Your task to perform on an android device: Go to Wikipedia Image 0: 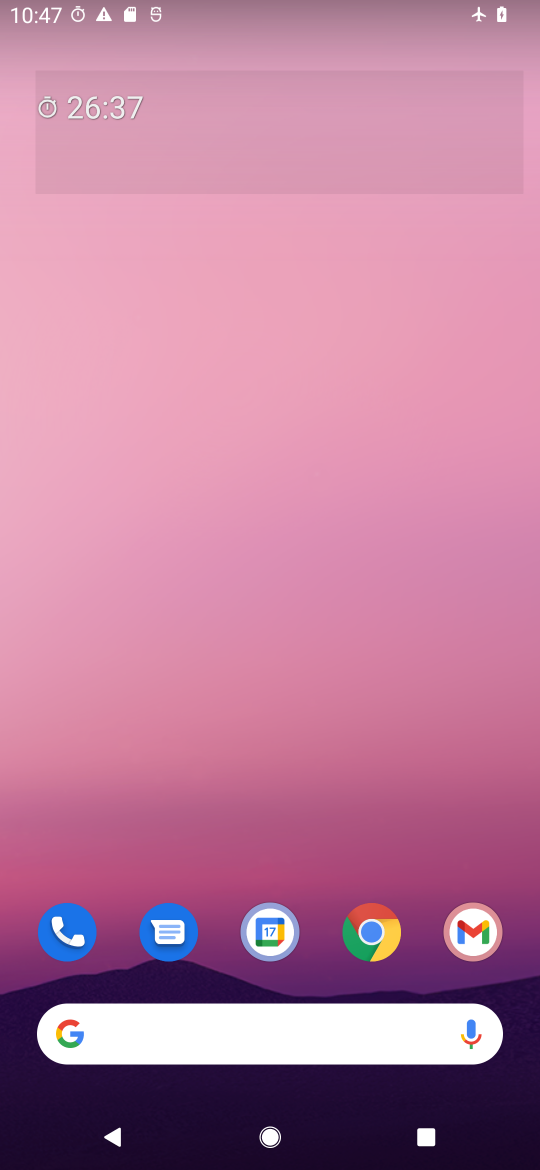
Step 0: click (386, 916)
Your task to perform on an android device: Go to Wikipedia Image 1: 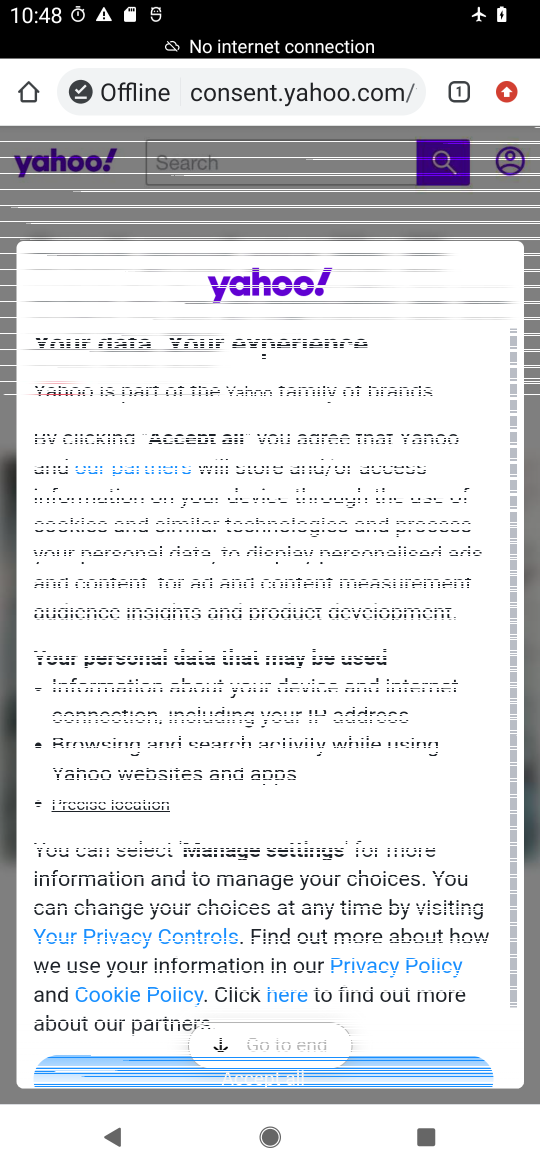
Step 1: click (460, 87)
Your task to perform on an android device: Go to Wikipedia Image 2: 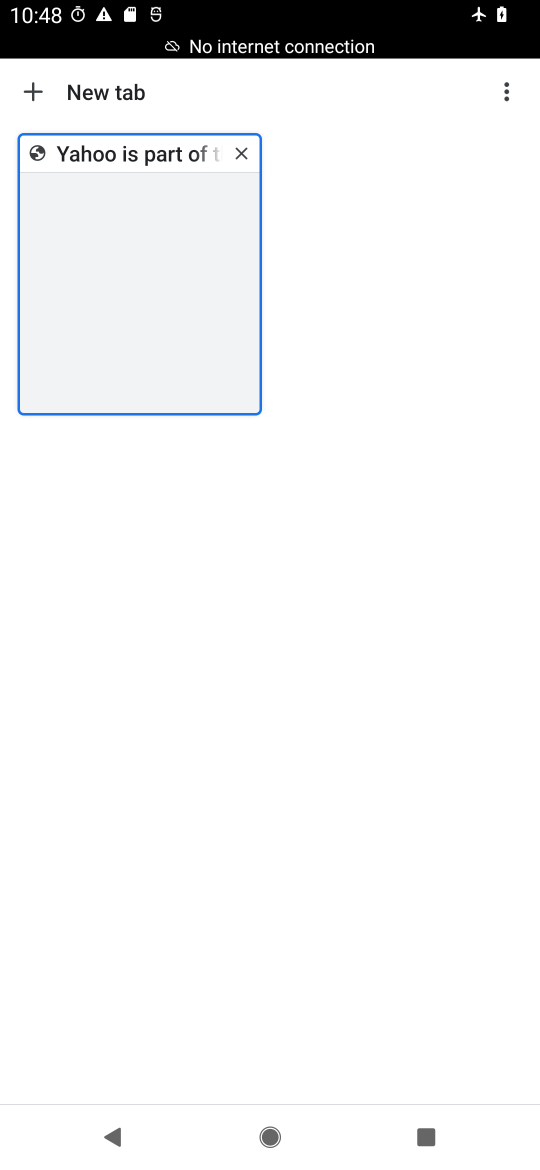
Step 2: click (34, 87)
Your task to perform on an android device: Go to Wikipedia Image 3: 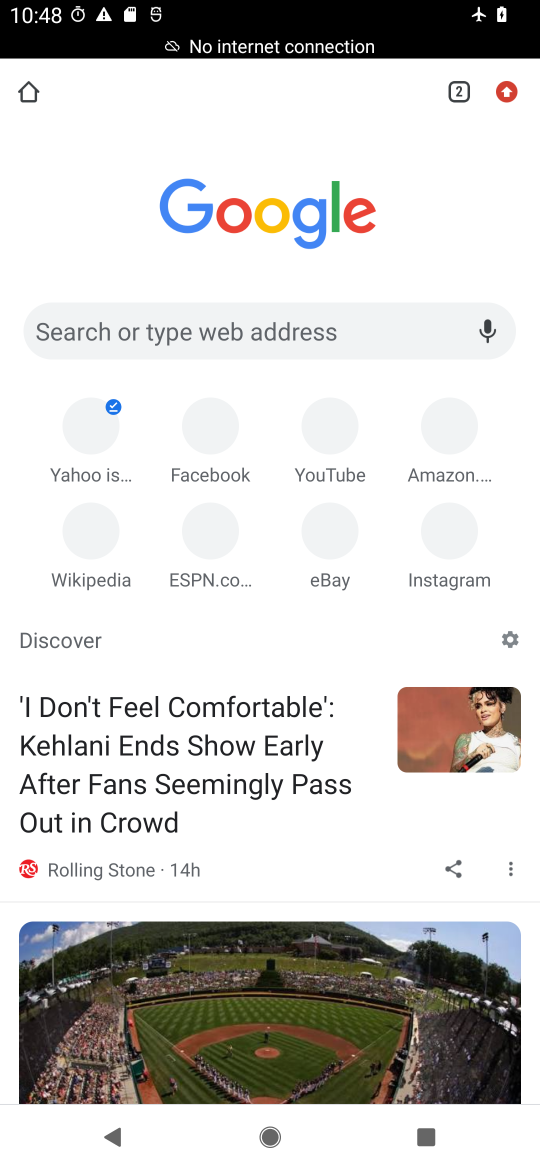
Step 3: click (107, 524)
Your task to perform on an android device: Go to Wikipedia Image 4: 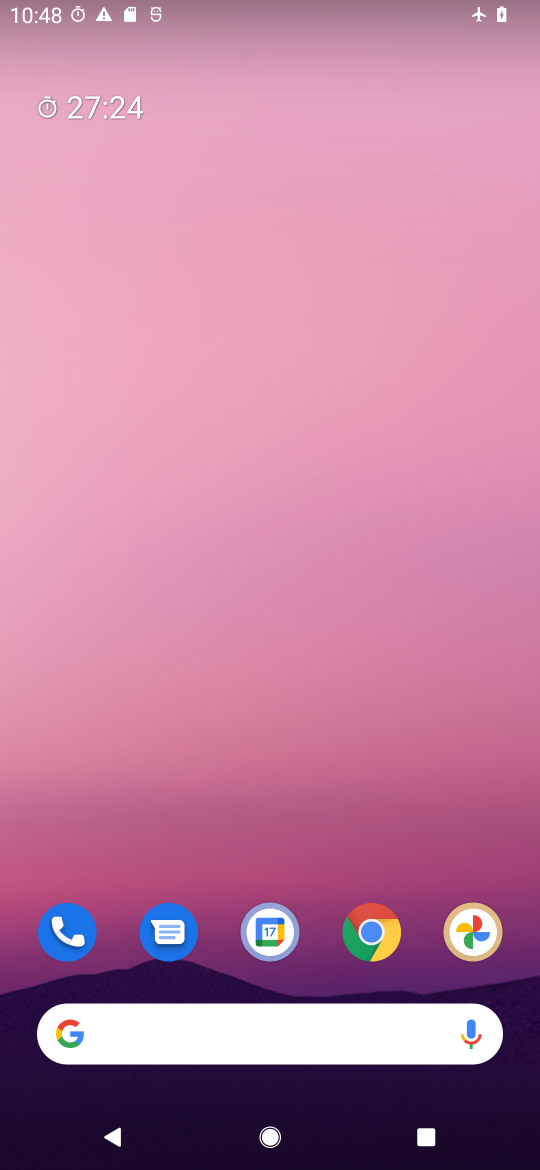
Step 4: click (360, 908)
Your task to perform on an android device: Go to Wikipedia Image 5: 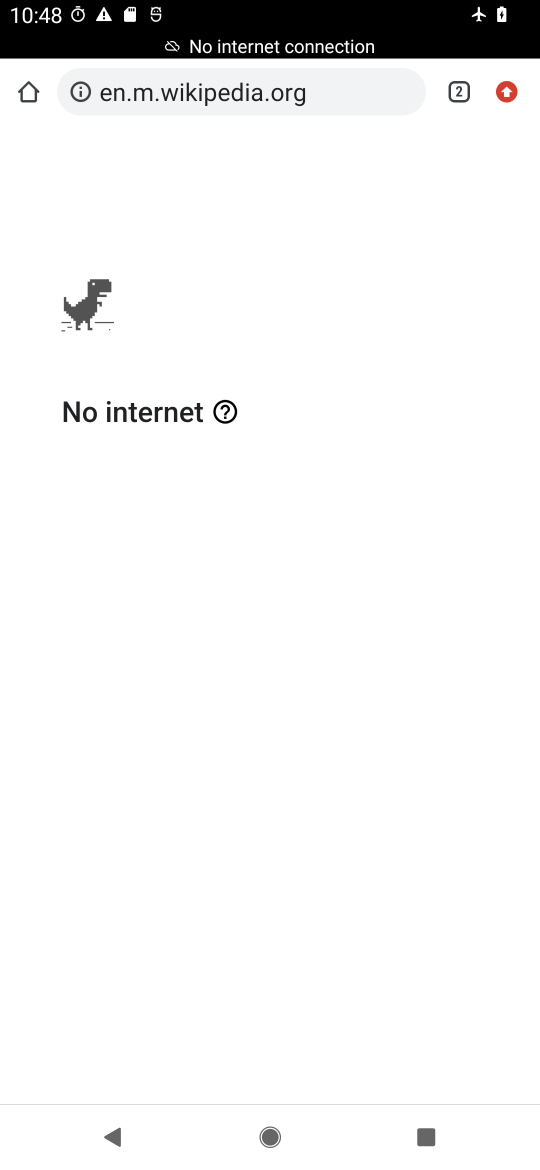
Step 5: task complete